Your task to perform on an android device: Open notification settings Image 0: 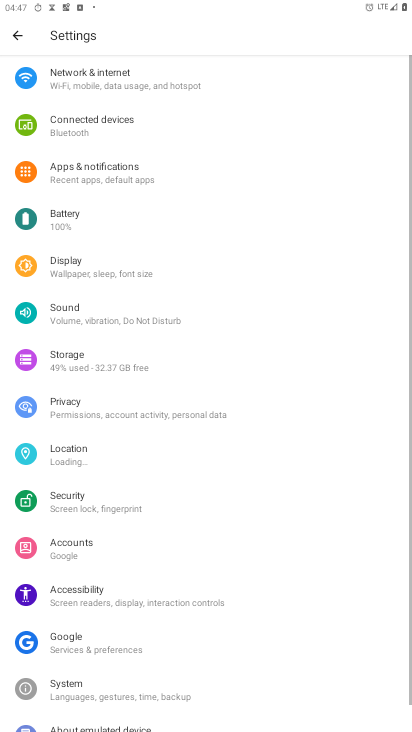
Step 0: press home button
Your task to perform on an android device: Open notification settings Image 1: 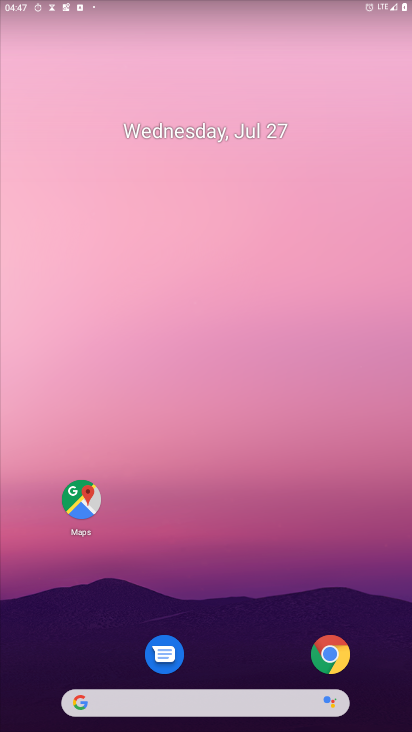
Step 1: drag from (263, 659) to (334, 16)
Your task to perform on an android device: Open notification settings Image 2: 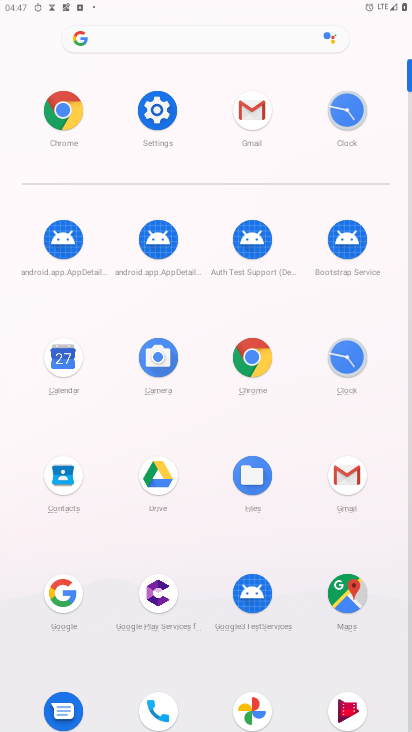
Step 2: click (157, 117)
Your task to perform on an android device: Open notification settings Image 3: 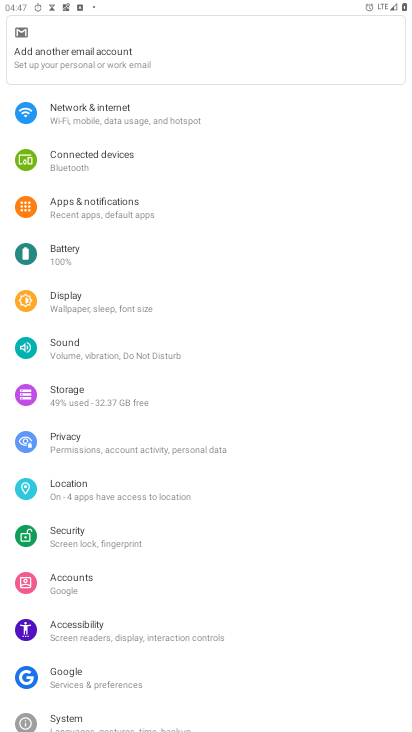
Step 3: click (109, 214)
Your task to perform on an android device: Open notification settings Image 4: 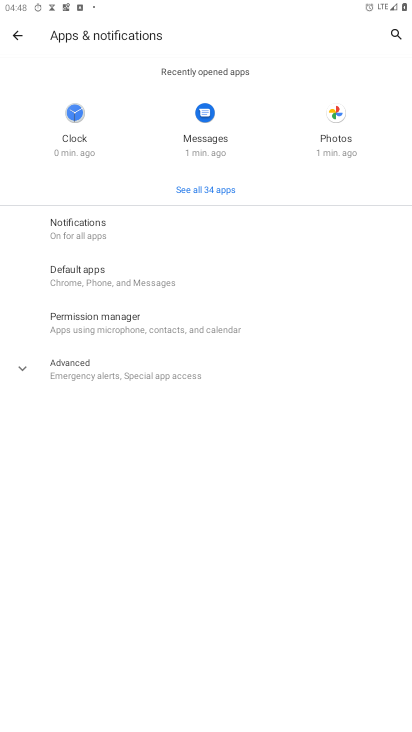
Step 4: task complete